Your task to perform on an android device: open chrome and create a bookmark for the current page Image 0: 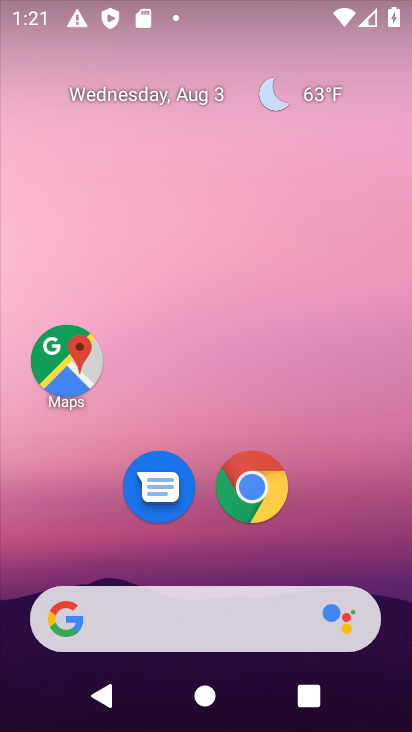
Step 0: press home button
Your task to perform on an android device: open chrome and create a bookmark for the current page Image 1: 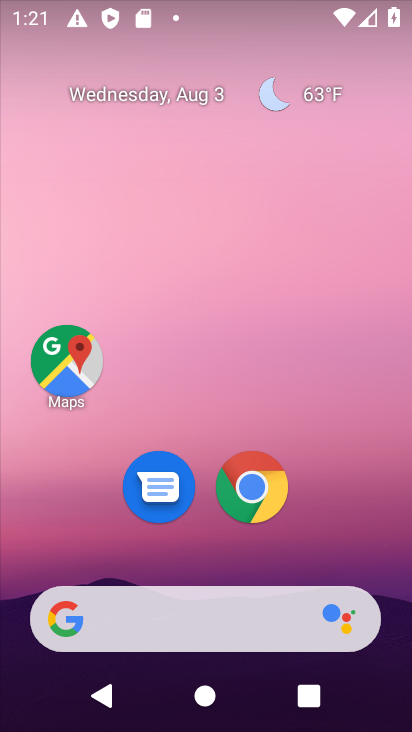
Step 1: drag from (352, 532) to (375, 93)
Your task to perform on an android device: open chrome and create a bookmark for the current page Image 2: 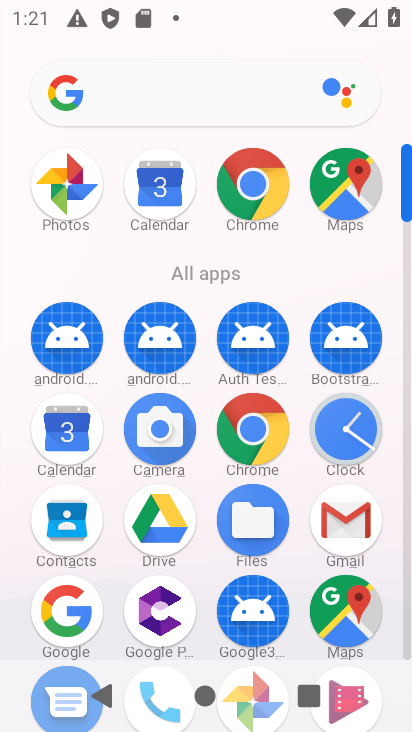
Step 2: click (238, 422)
Your task to perform on an android device: open chrome and create a bookmark for the current page Image 3: 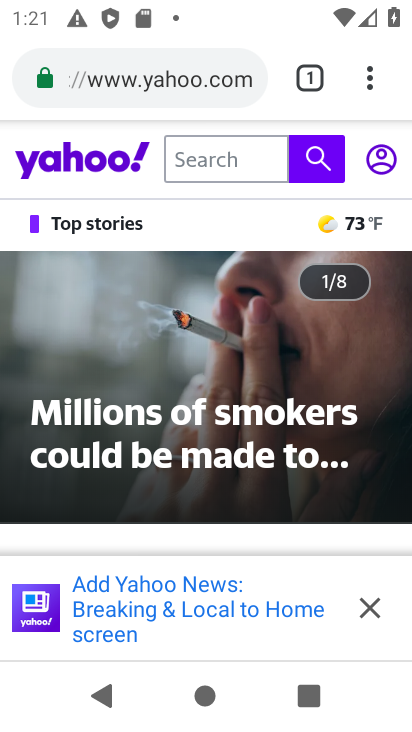
Step 3: task complete